Your task to perform on an android device: Open my contact list Image 0: 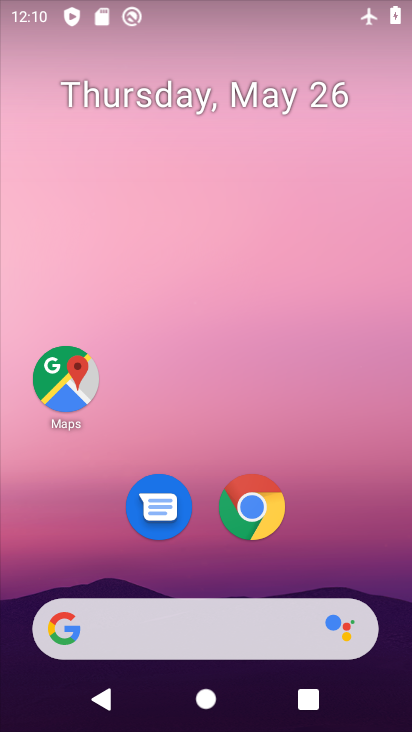
Step 0: drag from (184, 581) to (188, 268)
Your task to perform on an android device: Open my contact list Image 1: 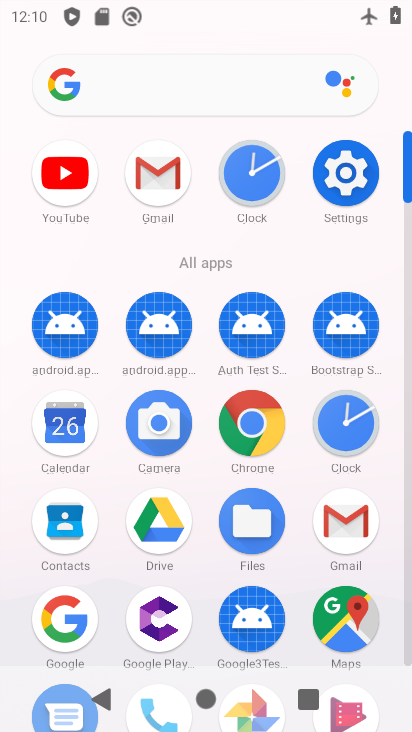
Step 1: click (76, 518)
Your task to perform on an android device: Open my contact list Image 2: 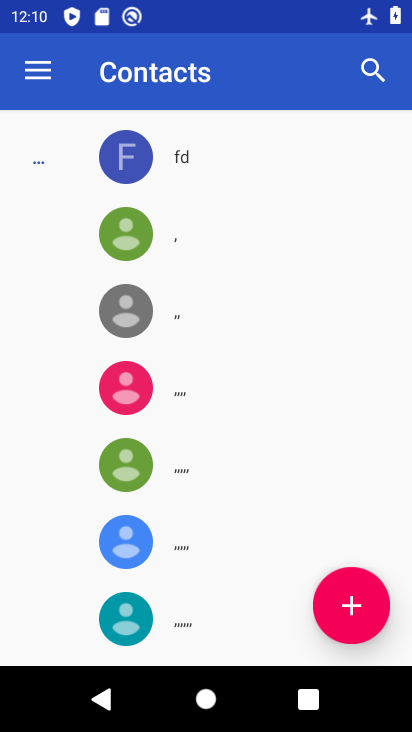
Step 2: task complete